Your task to perform on an android device: star an email in the gmail app Image 0: 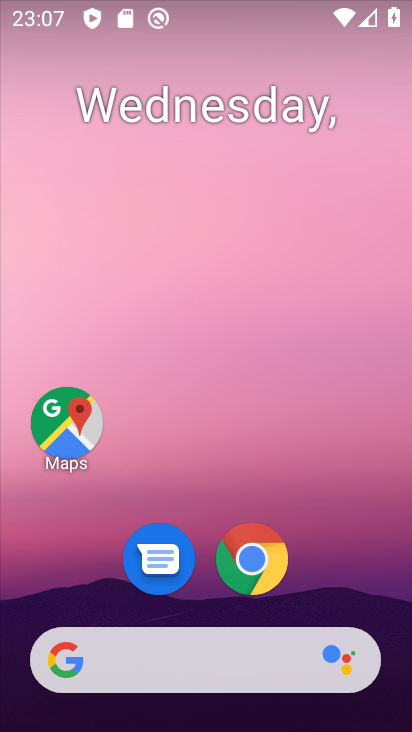
Step 0: drag from (203, 613) to (213, 214)
Your task to perform on an android device: star an email in the gmail app Image 1: 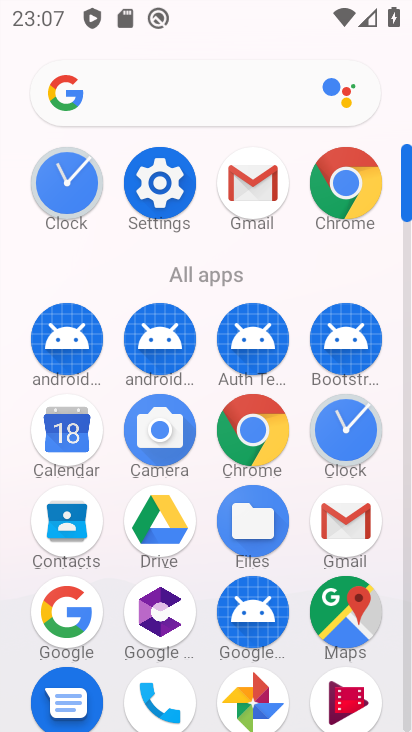
Step 1: click (255, 188)
Your task to perform on an android device: star an email in the gmail app Image 2: 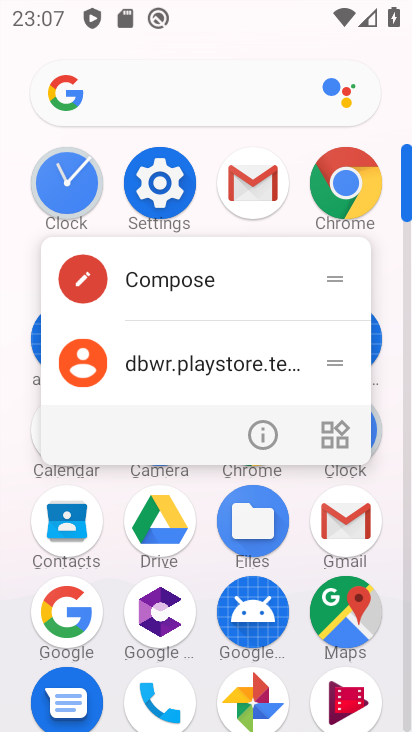
Step 2: click (263, 446)
Your task to perform on an android device: star an email in the gmail app Image 3: 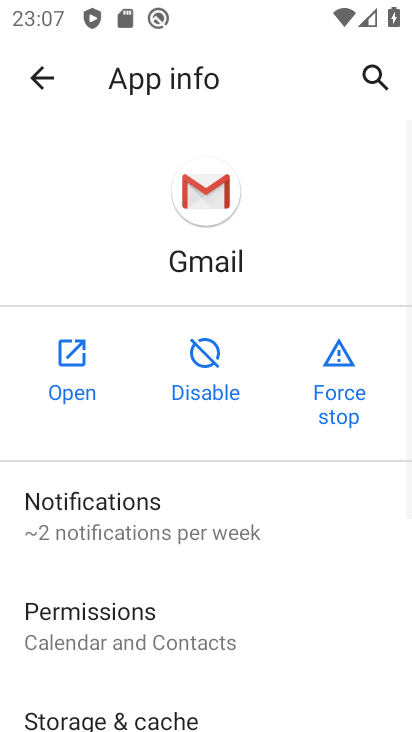
Step 3: click (91, 379)
Your task to perform on an android device: star an email in the gmail app Image 4: 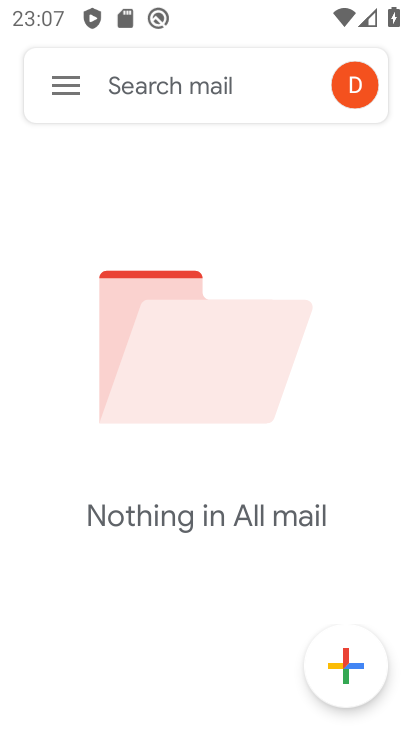
Step 4: click (60, 84)
Your task to perform on an android device: star an email in the gmail app Image 5: 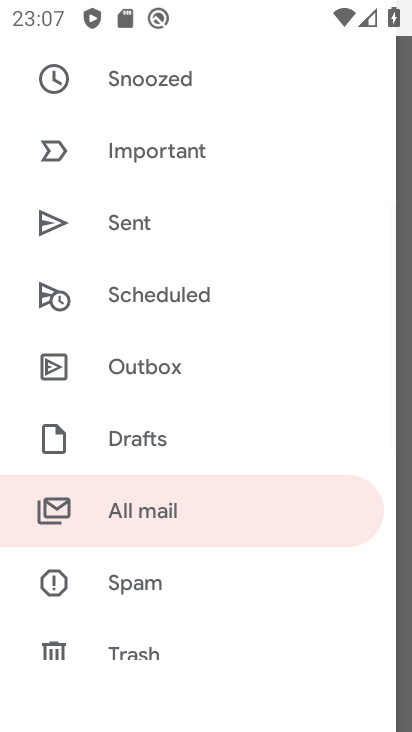
Step 5: click (155, 496)
Your task to perform on an android device: star an email in the gmail app Image 6: 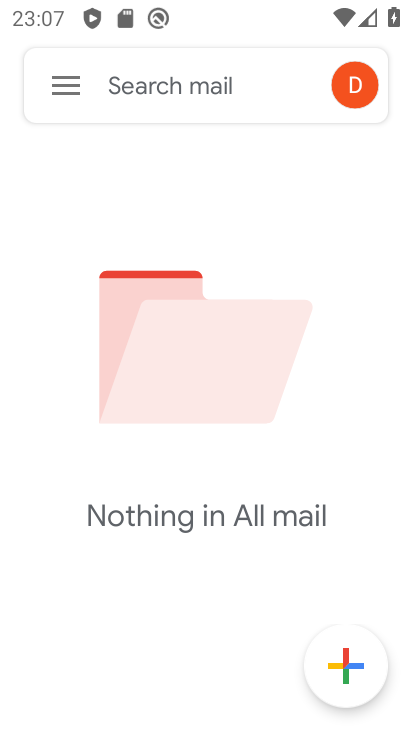
Step 6: task complete